Your task to perform on an android device: turn off improve location accuracy Image 0: 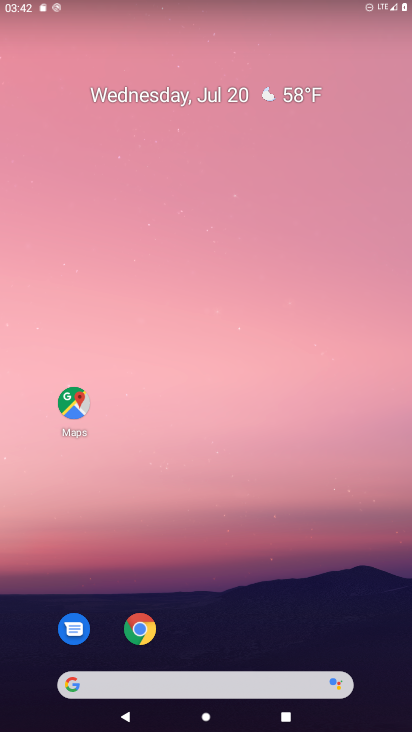
Step 0: press home button
Your task to perform on an android device: turn off improve location accuracy Image 1: 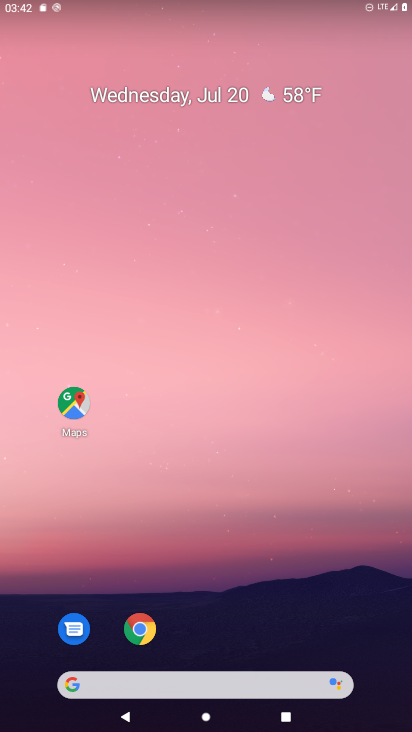
Step 1: drag from (93, 628) to (173, 145)
Your task to perform on an android device: turn off improve location accuracy Image 2: 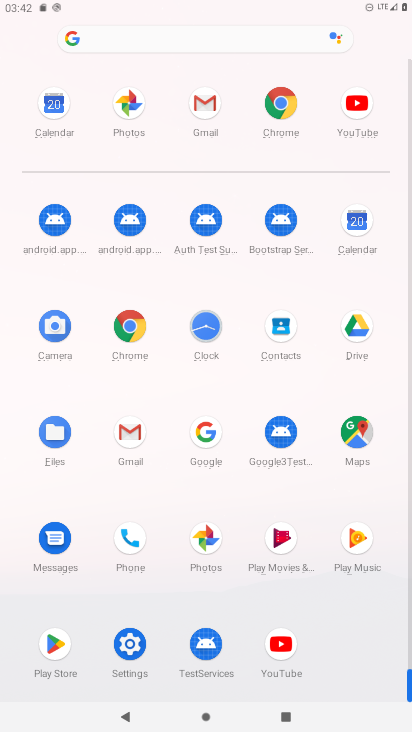
Step 2: click (139, 642)
Your task to perform on an android device: turn off improve location accuracy Image 3: 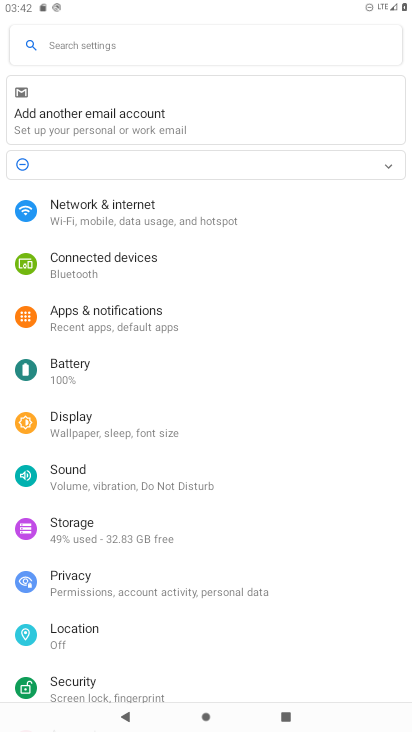
Step 3: click (139, 642)
Your task to perform on an android device: turn off improve location accuracy Image 4: 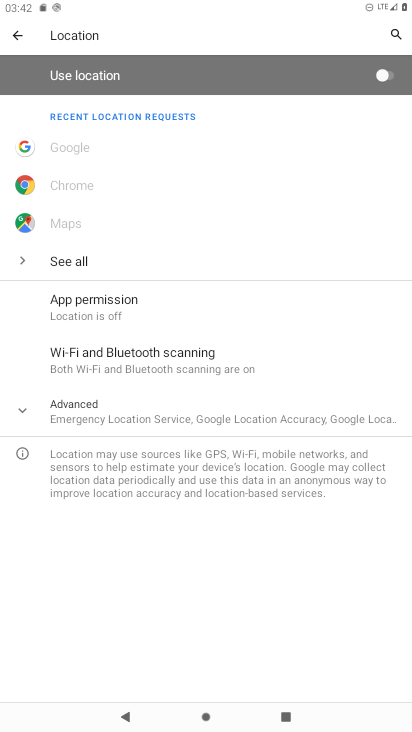
Step 4: click (81, 412)
Your task to perform on an android device: turn off improve location accuracy Image 5: 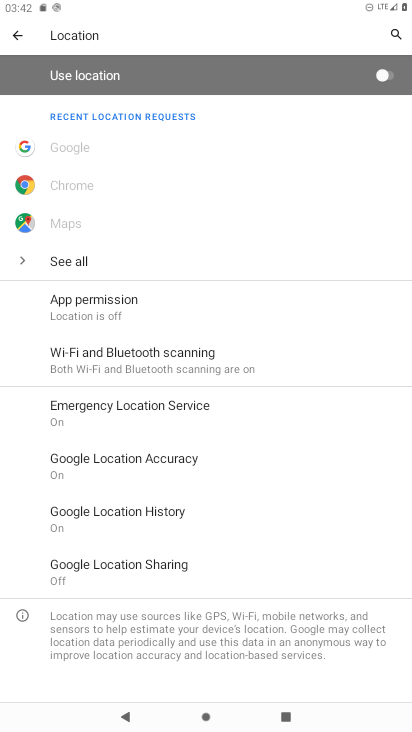
Step 5: click (68, 470)
Your task to perform on an android device: turn off improve location accuracy Image 6: 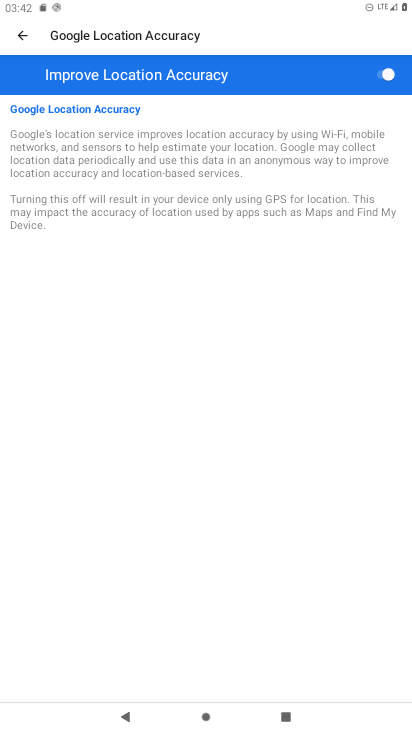
Step 6: click (299, 78)
Your task to perform on an android device: turn off improve location accuracy Image 7: 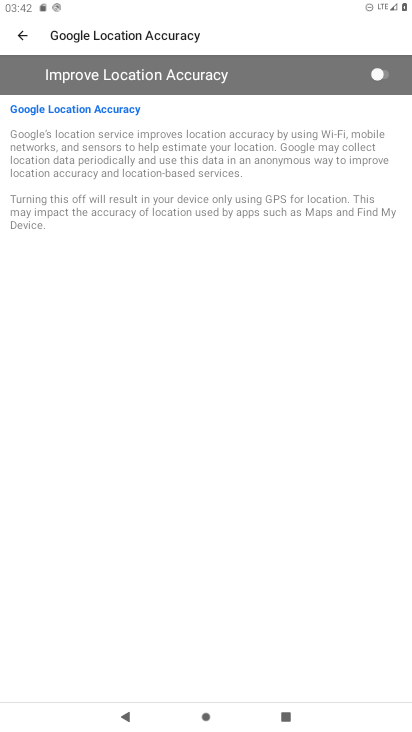
Step 7: task complete